Your task to perform on an android device: empty trash in google photos Image 0: 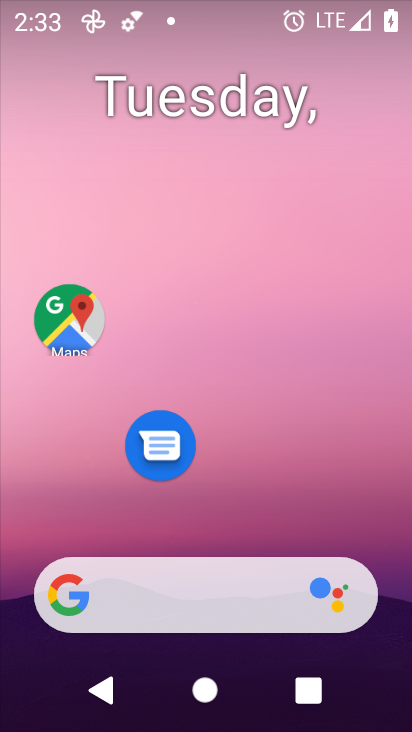
Step 0: drag from (261, 495) to (149, 123)
Your task to perform on an android device: empty trash in google photos Image 1: 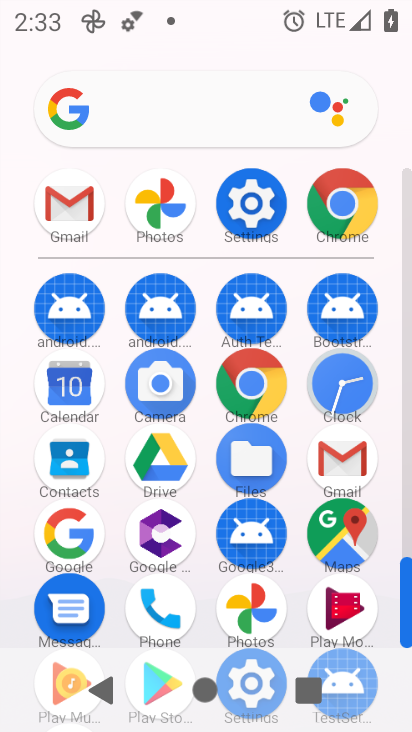
Step 1: click (250, 595)
Your task to perform on an android device: empty trash in google photos Image 2: 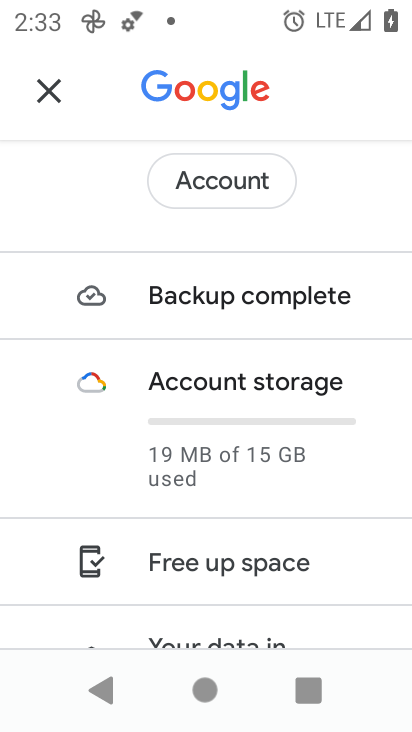
Step 2: click (51, 89)
Your task to perform on an android device: empty trash in google photos Image 3: 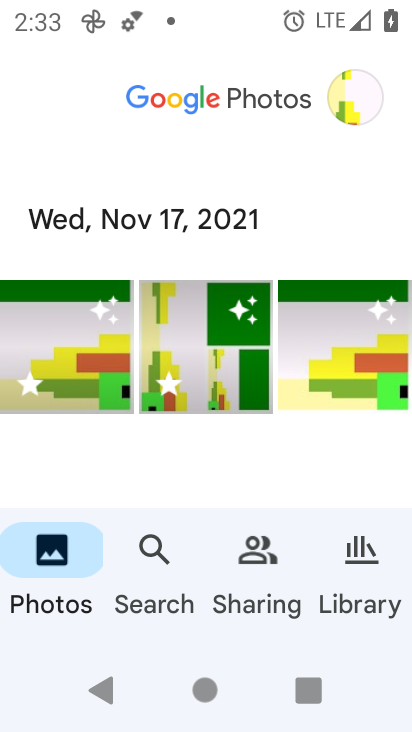
Step 3: click (362, 550)
Your task to perform on an android device: empty trash in google photos Image 4: 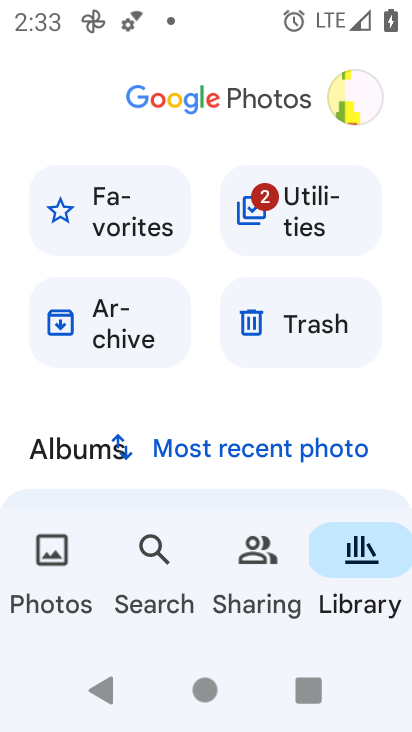
Step 4: click (288, 319)
Your task to perform on an android device: empty trash in google photos Image 5: 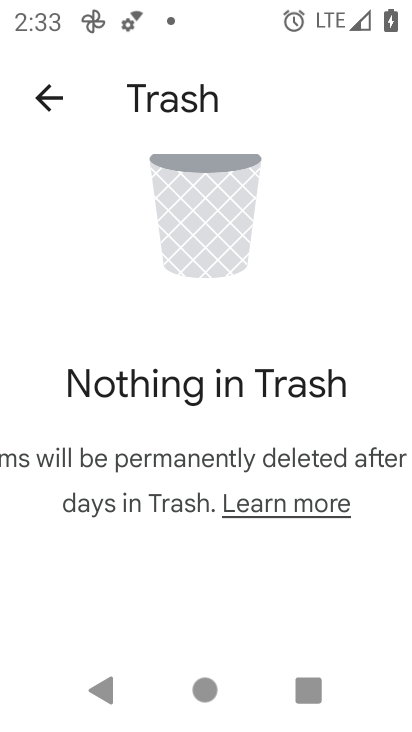
Step 5: task complete